Your task to perform on an android device: Open Google Chrome and open the bookmarks view Image 0: 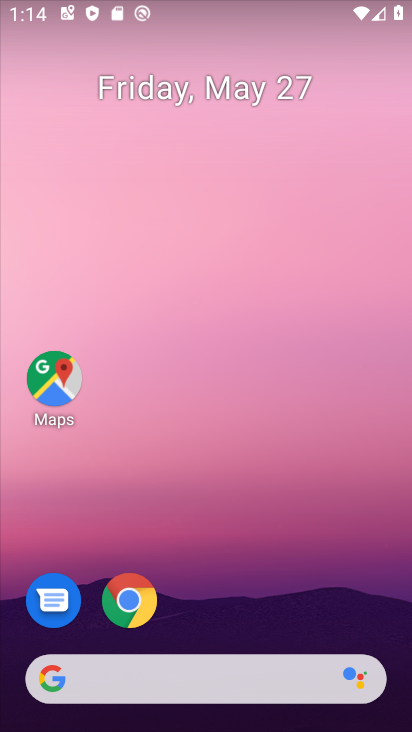
Step 0: click (128, 603)
Your task to perform on an android device: Open Google Chrome and open the bookmarks view Image 1: 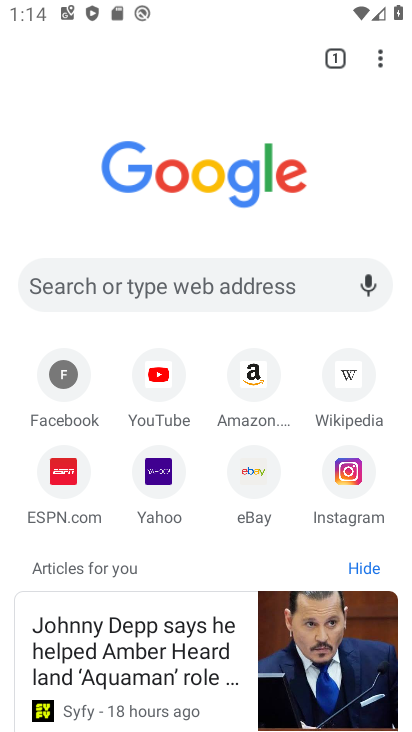
Step 1: click (382, 67)
Your task to perform on an android device: Open Google Chrome and open the bookmarks view Image 2: 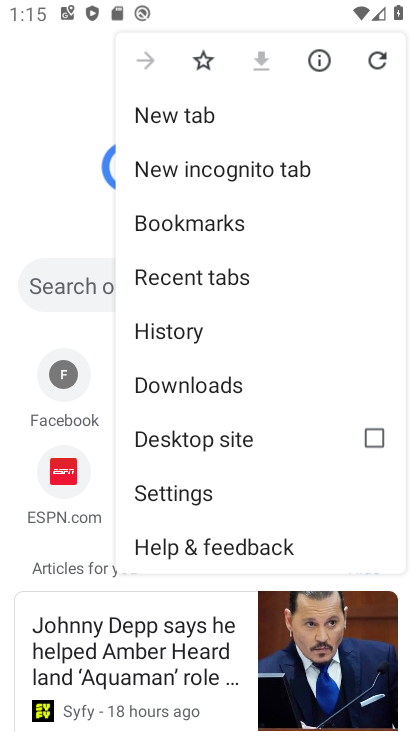
Step 2: click (189, 227)
Your task to perform on an android device: Open Google Chrome and open the bookmarks view Image 3: 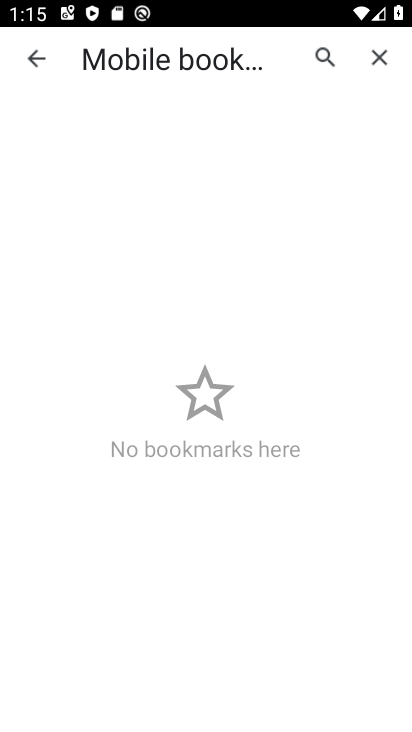
Step 3: task complete